Your task to perform on an android device: Turn on the flashlight Image 0: 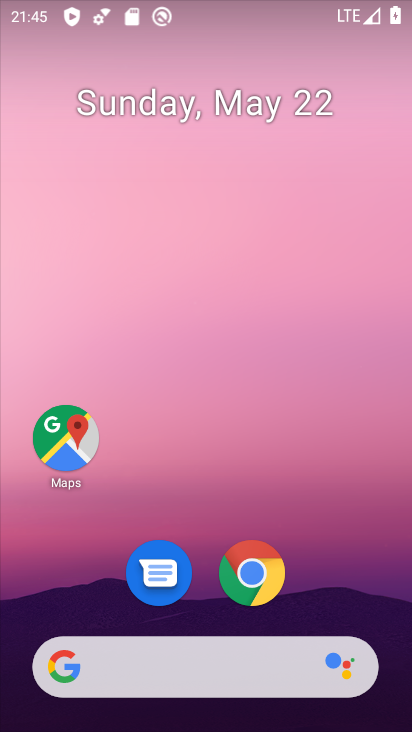
Step 0: press home button
Your task to perform on an android device: Turn on the flashlight Image 1: 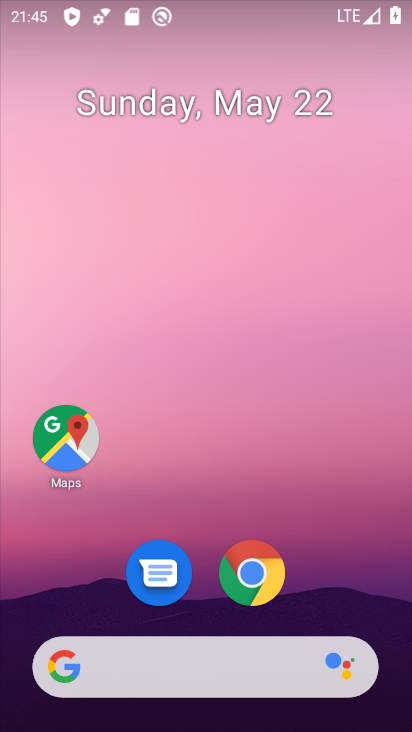
Step 1: task complete